Your task to perform on an android device: change timer sound Image 0: 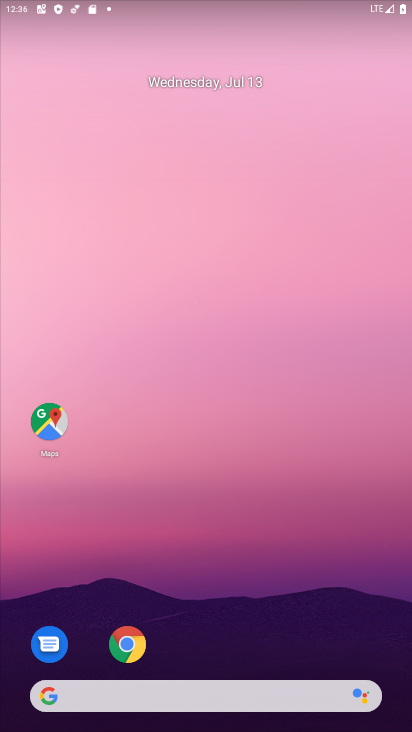
Step 0: drag from (231, 261) to (275, 109)
Your task to perform on an android device: change timer sound Image 1: 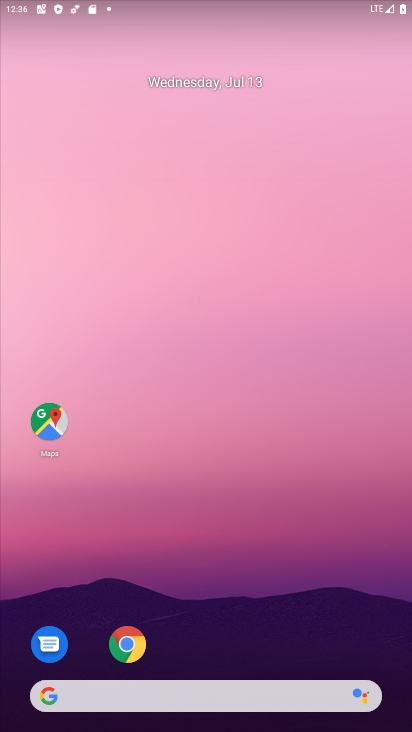
Step 1: drag from (196, 621) to (276, 102)
Your task to perform on an android device: change timer sound Image 2: 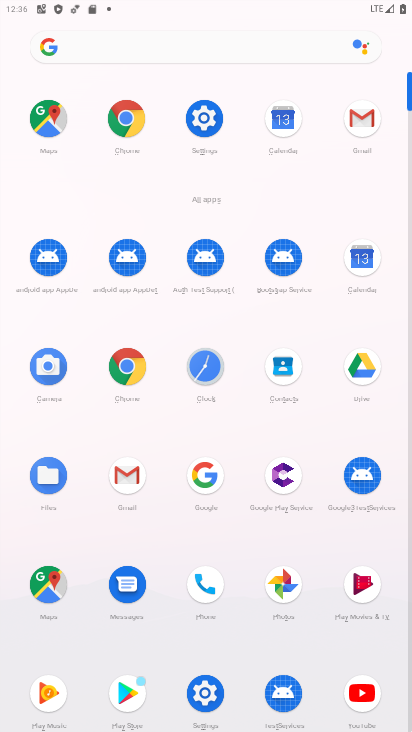
Step 2: click (198, 379)
Your task to perform on an android device: change timer sound Image 3: 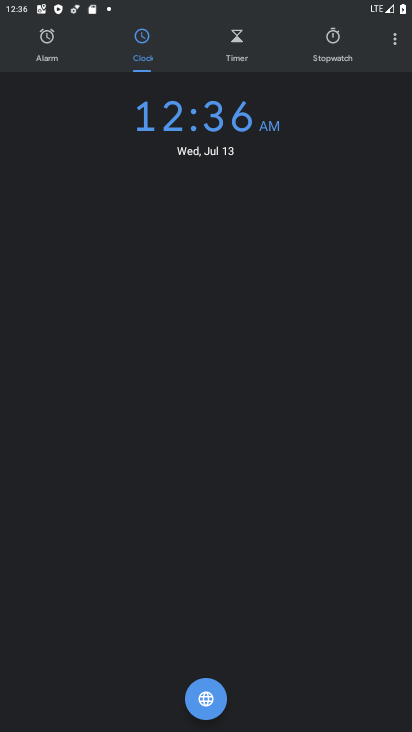
Step 3: click (400, 40)
Your task to perform on an android device: change timer sound Image 4: 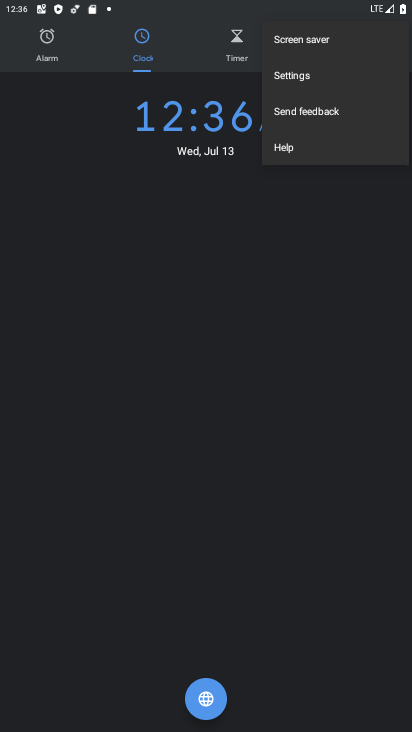
Step 4: click (301, 73)
Your task to perform on an android device: change timer sound Image 5: 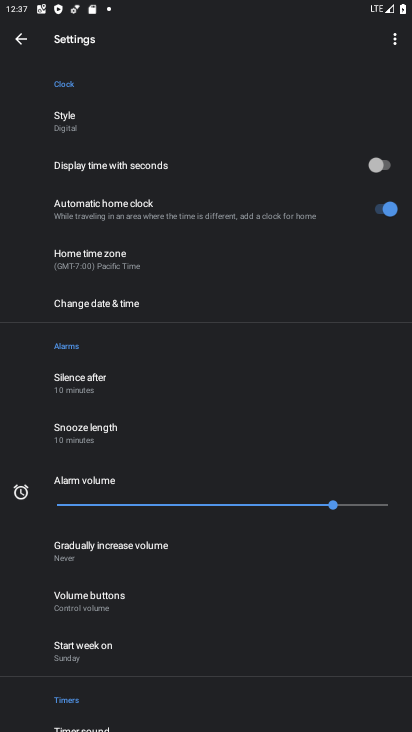
Step 5: drag from (142, 500) to (150, 358)
Your task to perform on an android device: change timer sound Image 6: 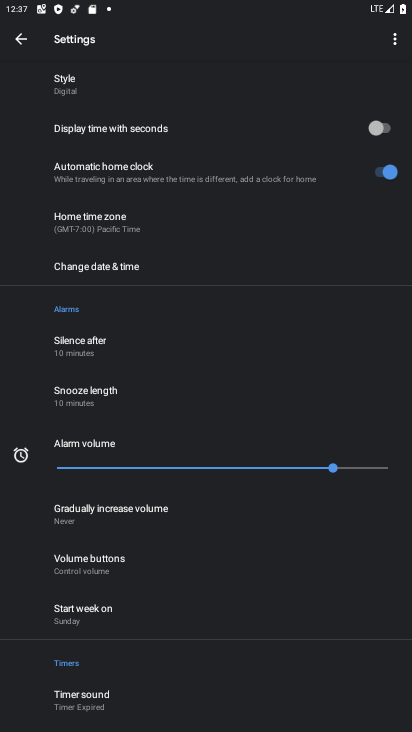
Step 6: click (88, 695)
Your task to perform on an android device: change timer sound Image 7: 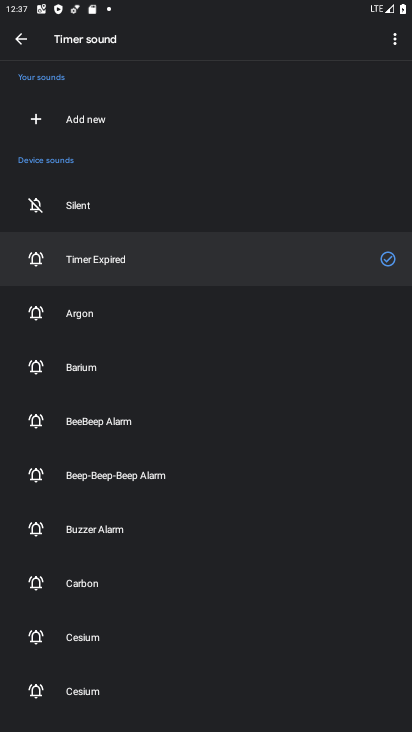
Step 7: click (66, 324)
Your task to perform on an android device: change timer sound Image 8: 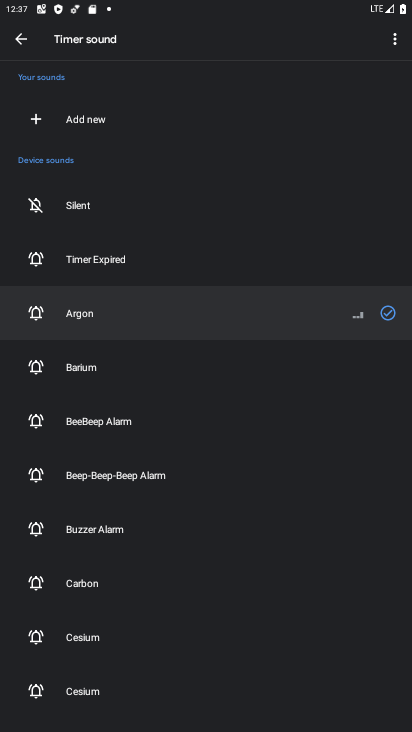
Step 8: task complete